Your task to perform on an android device: Search for "usb-c to usb-a" on bestbuy, select the first entry, and add it to the cart. Image 0: 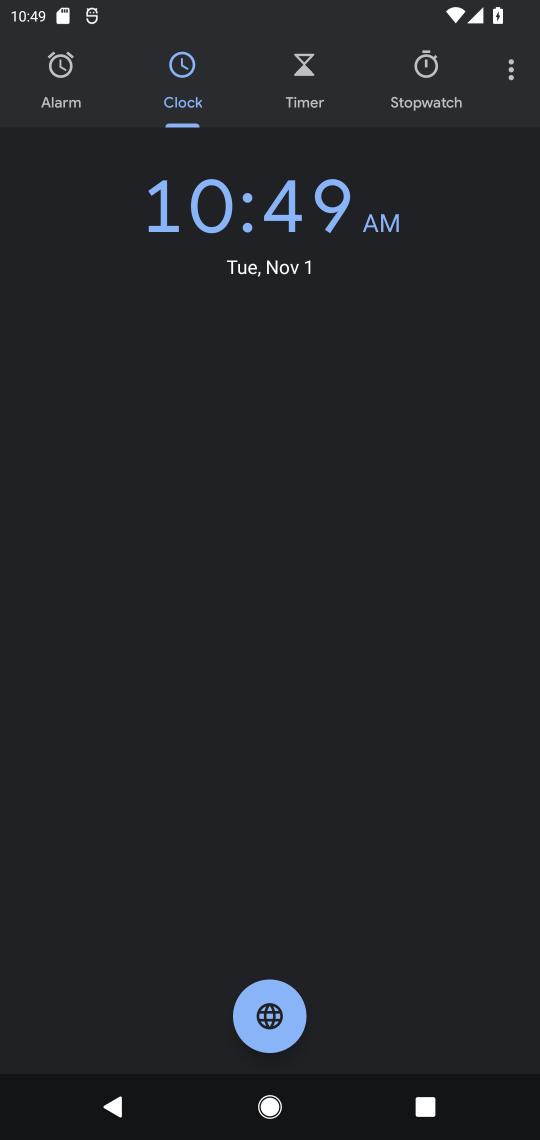
Step 0: press home button
Your task to perform on an android device: Search for "usb-c to usb-a" on bestbuy, select the first entry, and add it to the cart. Image 1: 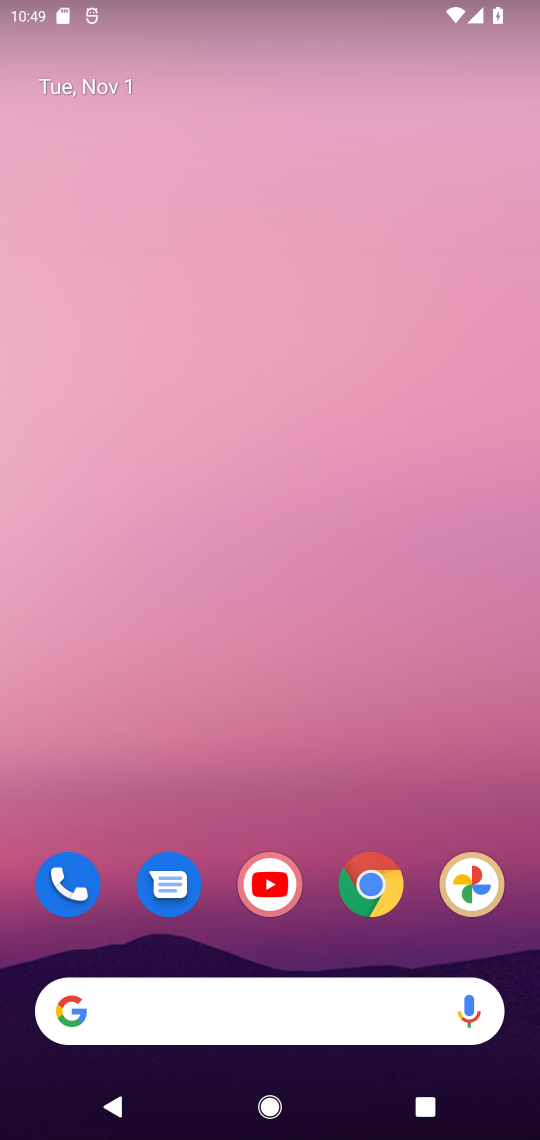
Step 1: click (372, 898)
Your task to perform on an android device: Search for "usb-c to usb-a" on bestbuy, select the first entry, and add it to the cart. Image 2: 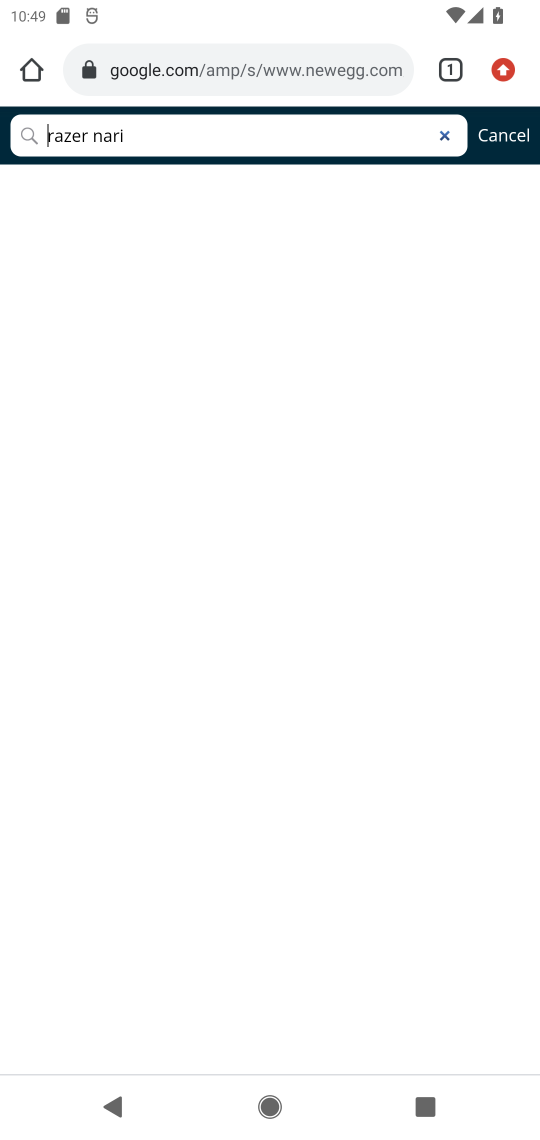
Step 2: click (183, 69)
Your task to perform on an android device: Search for "usb-c to usb-a" on bestbuy, select the first entry, and add it to the cart. Image 3: 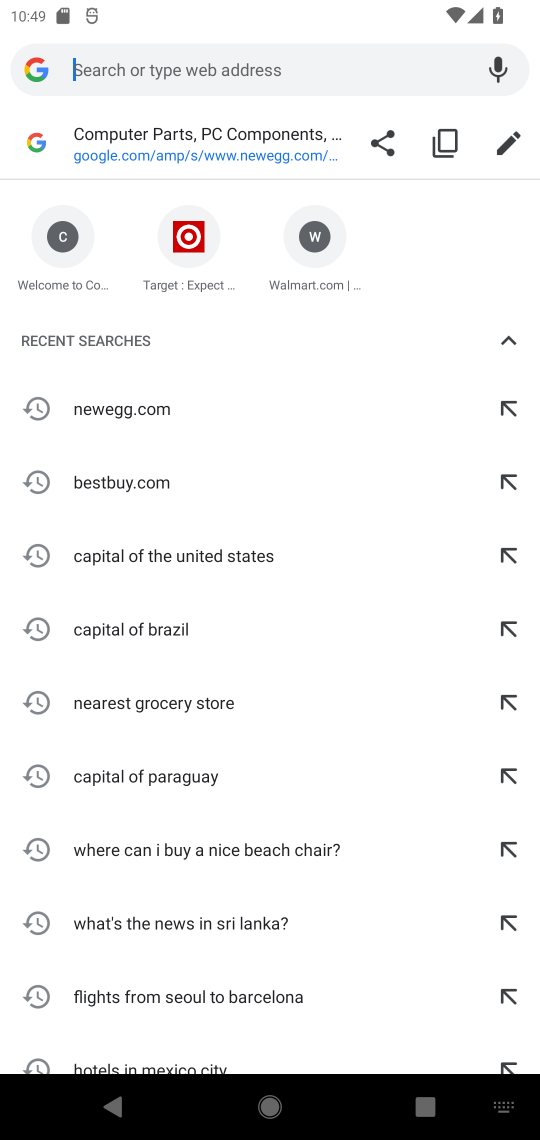
Step 3: click (116, 486)
Your task to perform on an android device: Search for "usb-c to usb-a" on bestbuy, select the first entry, and add it to the cart. Image 4: 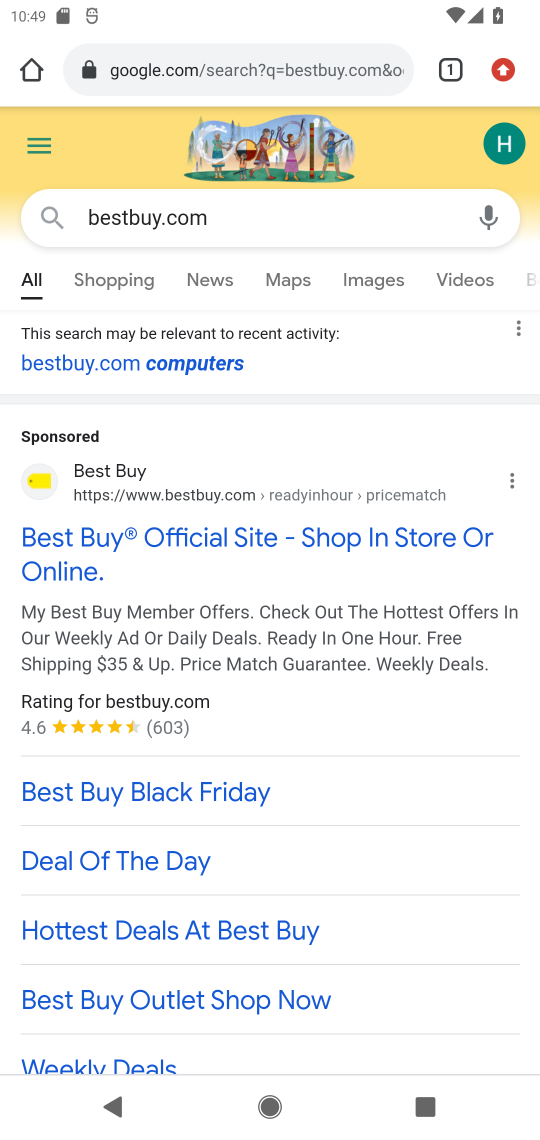
Step 4: click (98, 533)
Your task to perform on an android device: Search for "usb-c to usb-a" on bestbuy, select the first entry, and add it to the cart. Image 5: 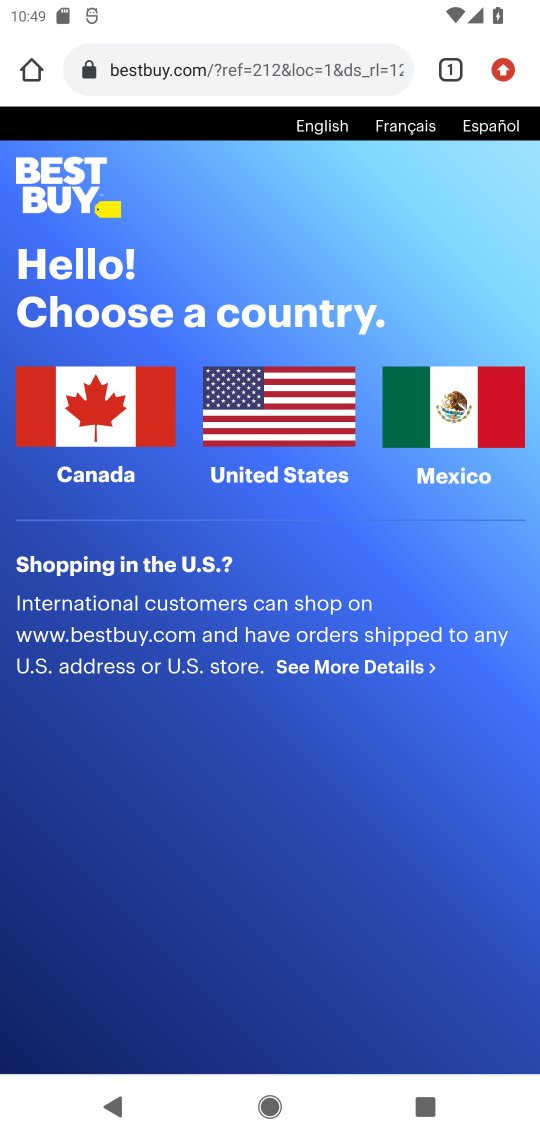
Step 5: click (283, 422)
Your task to perform on an android device: Search for "usb-c to usb-a" on bestbuy, select the first entry, and add it to the cart. Image 6: 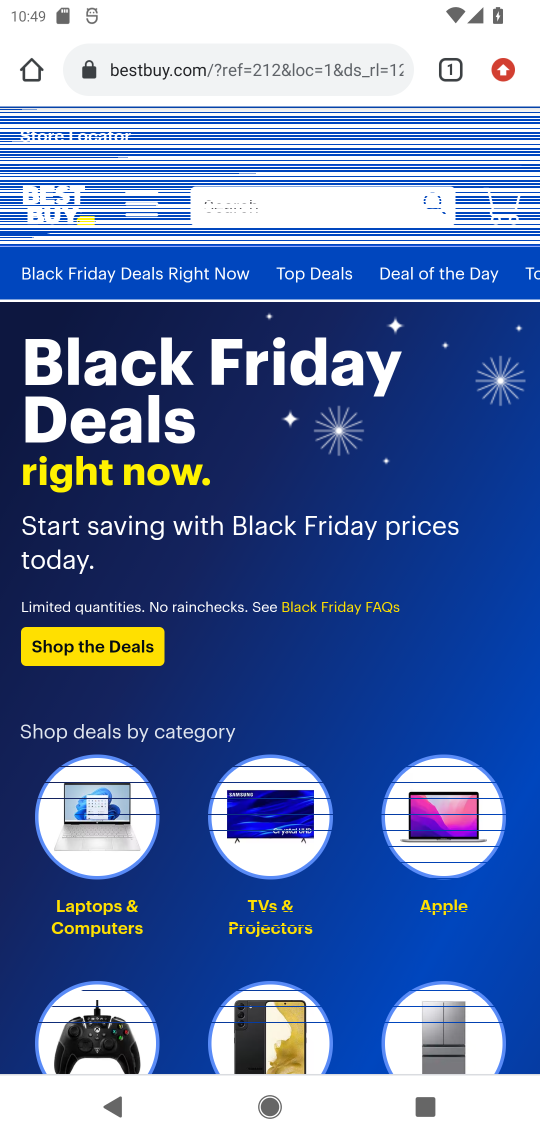
Step 6: click (312, 205)
Your task to perform on an android device: Search for "usb-c to usb-a" on bestbuy, select the first entry, and add it to the cart. Image 7: 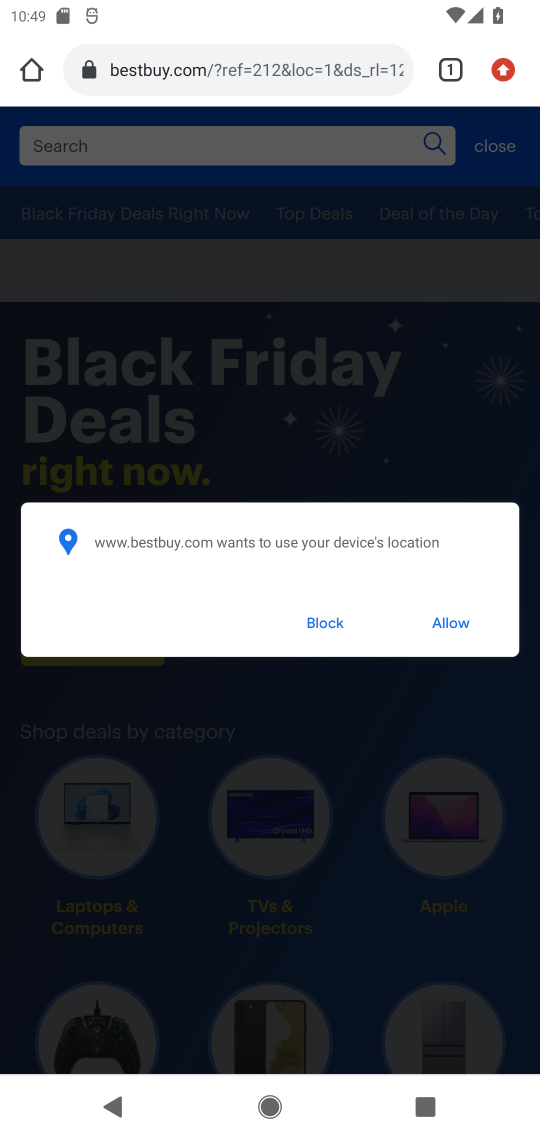
Step 7: click (323, 620)
Your task to perform on an android device: Search for "usb-c to usb-a" on bestbuy, select the first entry, and add it to the cart. Image 8: 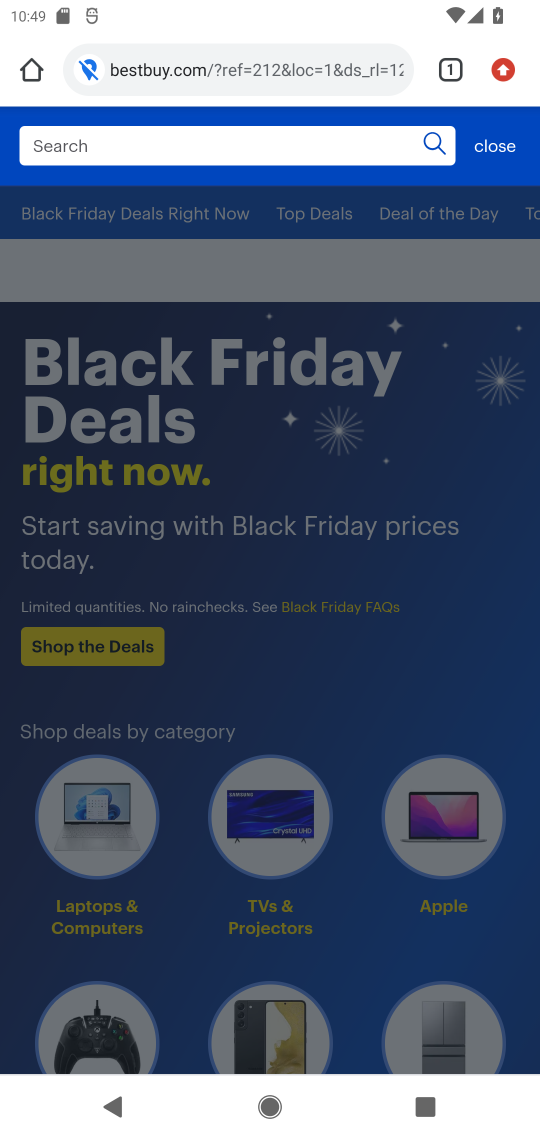
Step 8: click (115, 143)
Your task to perform on an android device: Search for "usb-c to usb-a" on bestbuy, select the first entry, and add it to the cart. Image 9: 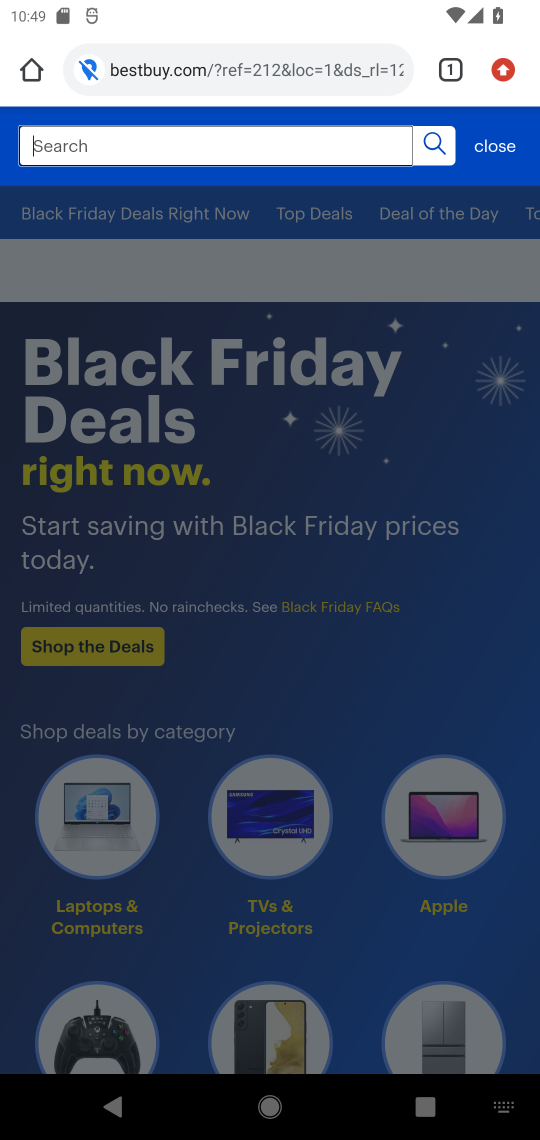
Step 9: type "usb-c to usb-a"
Your task to perform on an android device: Search for "usb-c to usb-a" on bestbuy, select the first entry, and add it to the cart. Image 10: 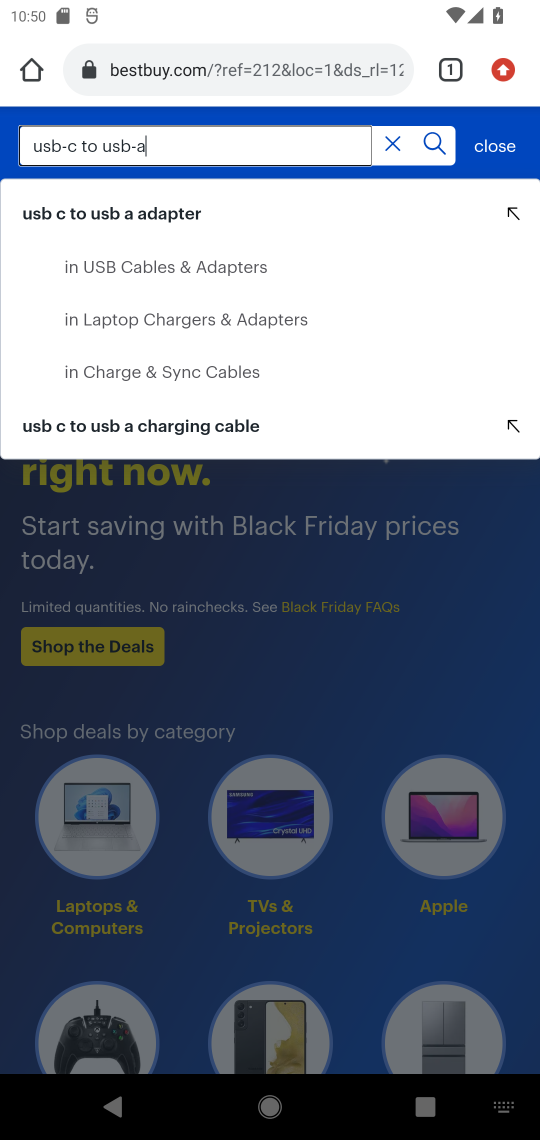
Step 10: click (101, 212)
Your task to perform on an android device: Search for "usb-c to usb-a" on bestbuy, select the first entry, and add it to the cart. Image 11: 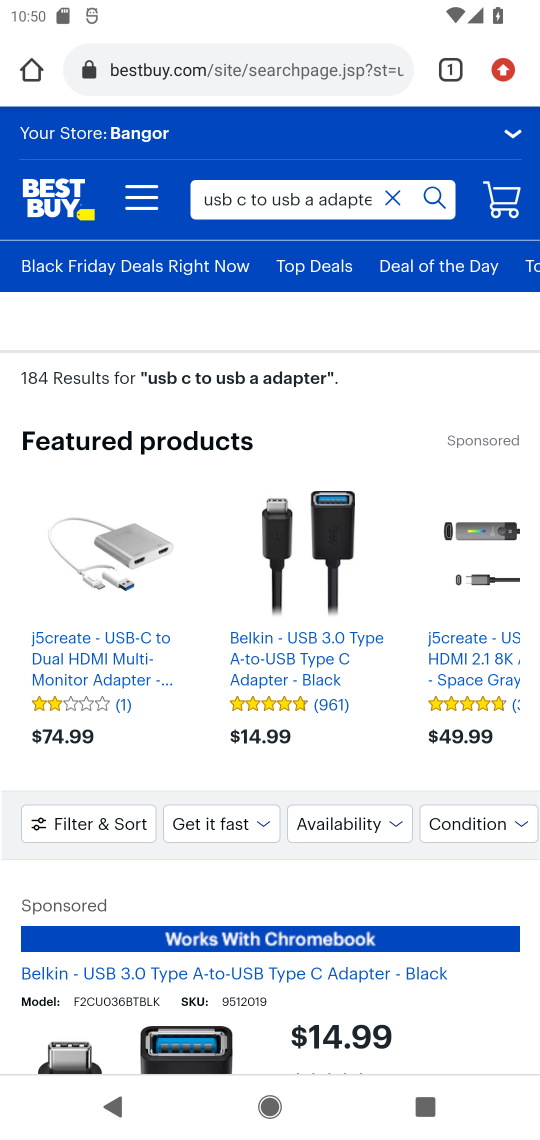
Step 11: drag from (228, 848) to (232, 430)
Your task to perform on an android device: Search for "usb-c to usb-a" on bestbuy, select the first entry, and add it to the cart. Image 12: 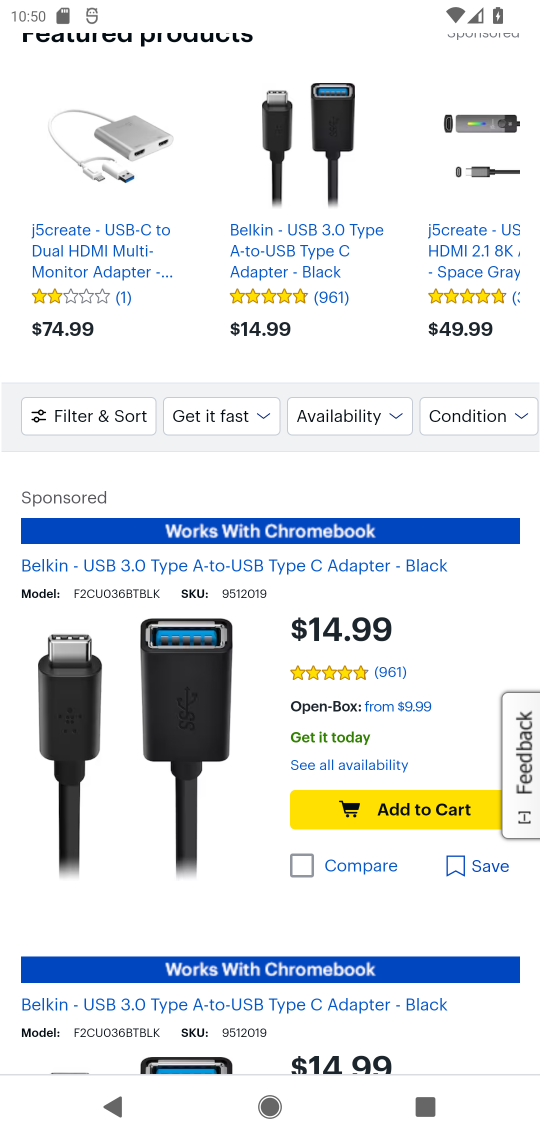
Step 12: click (400, 807)
Your task to perform on an android device: Search for "usb-c to usb-a" on bestbuy, select the first entry, and add it to the cart. Image 13: 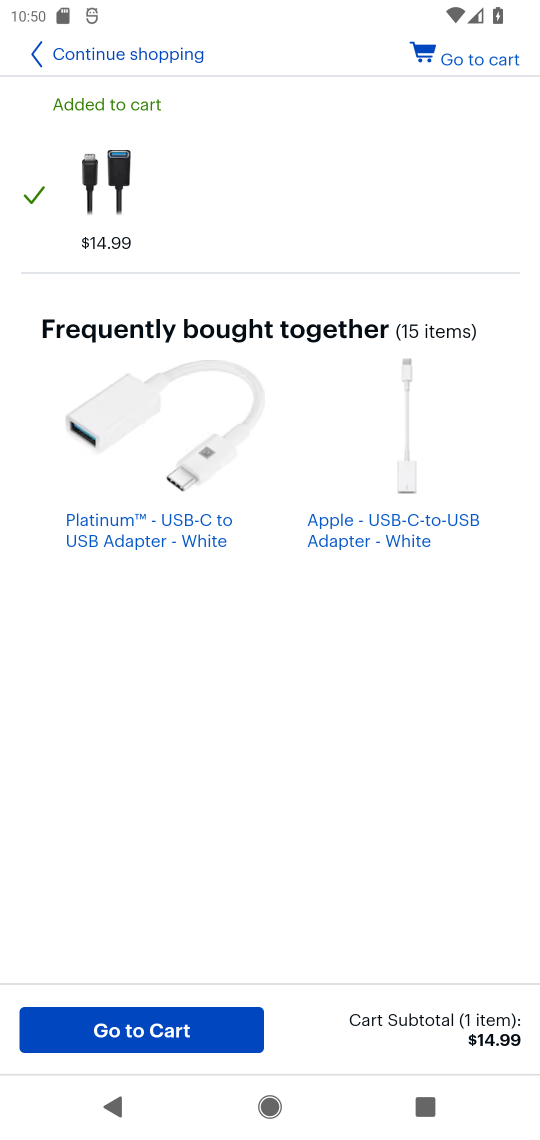
Step 13: task complete